Your task to perform on an android device: turn off javascript in the chrome app Image 0: 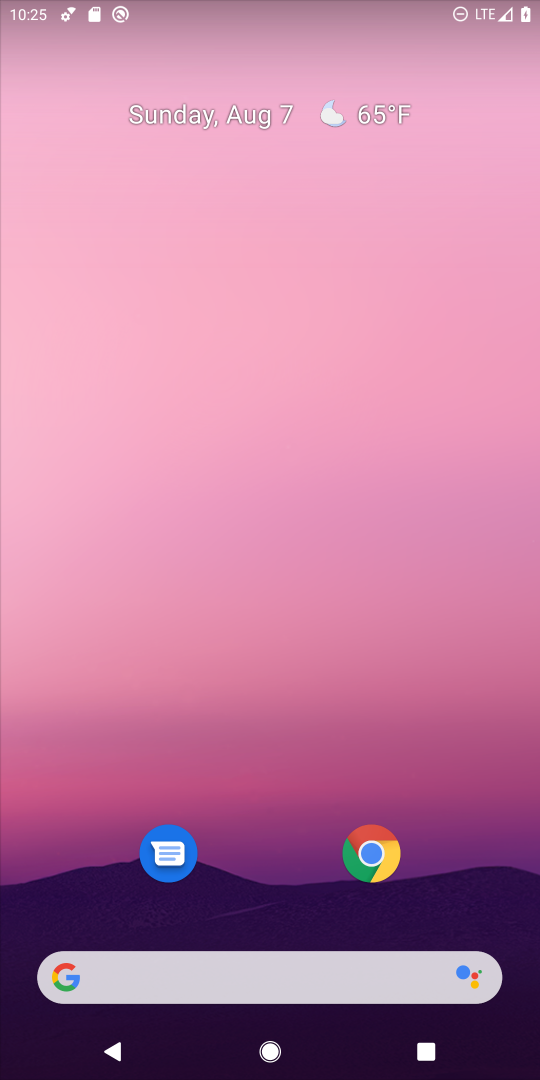
Step 0: drag from (309, 916) to (263, 237)
Your task to perform on an android device: turn off javascript in the chrome app Image 1: 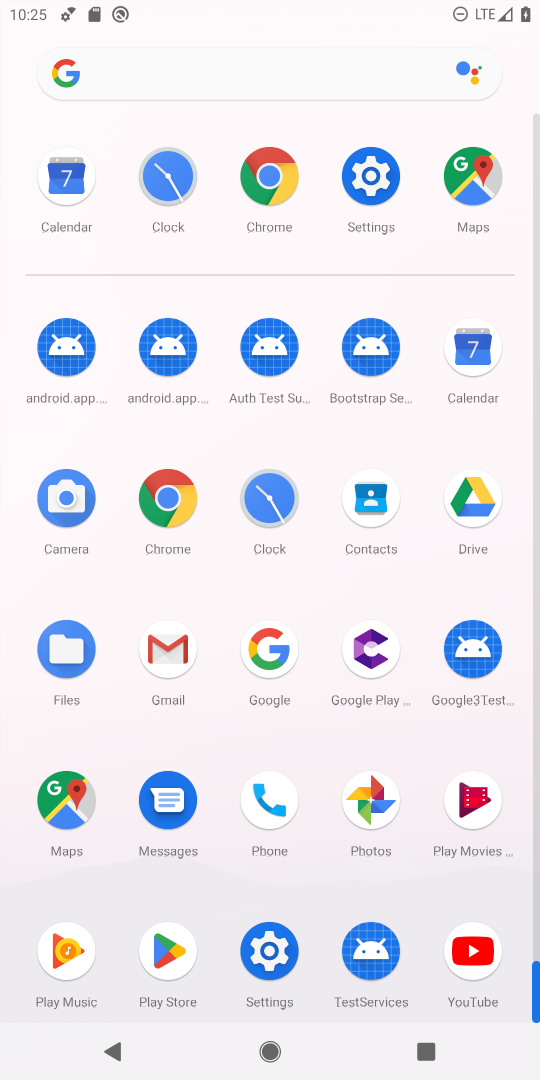
Step 1: click (271, 165)
Your task to perform on an android device: turn off javascript in the chrome app Image 2: 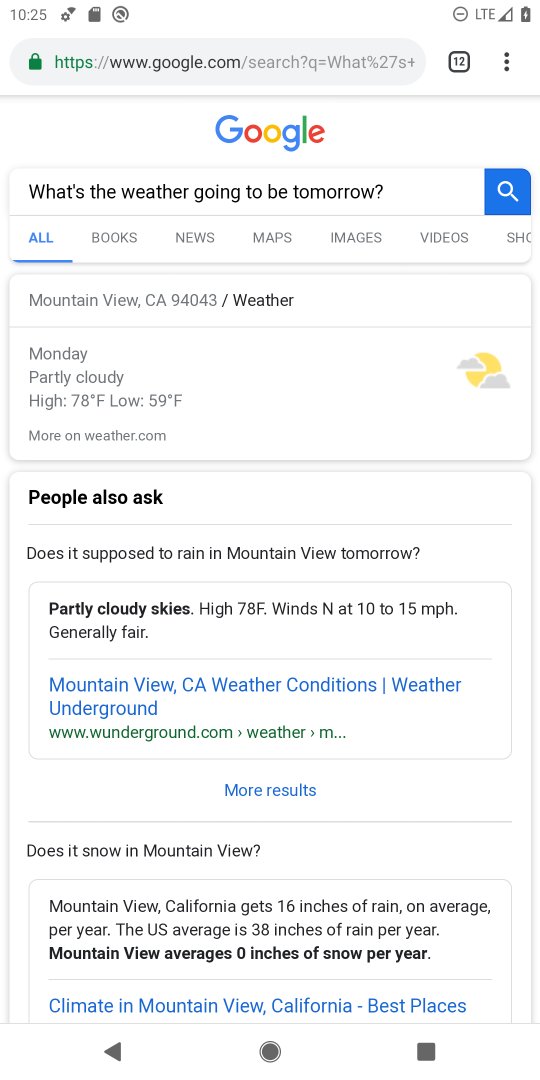
Step 2: click (511, 62)
Your task to perform on an android device: turn off javascript in the chrome app Image 3: 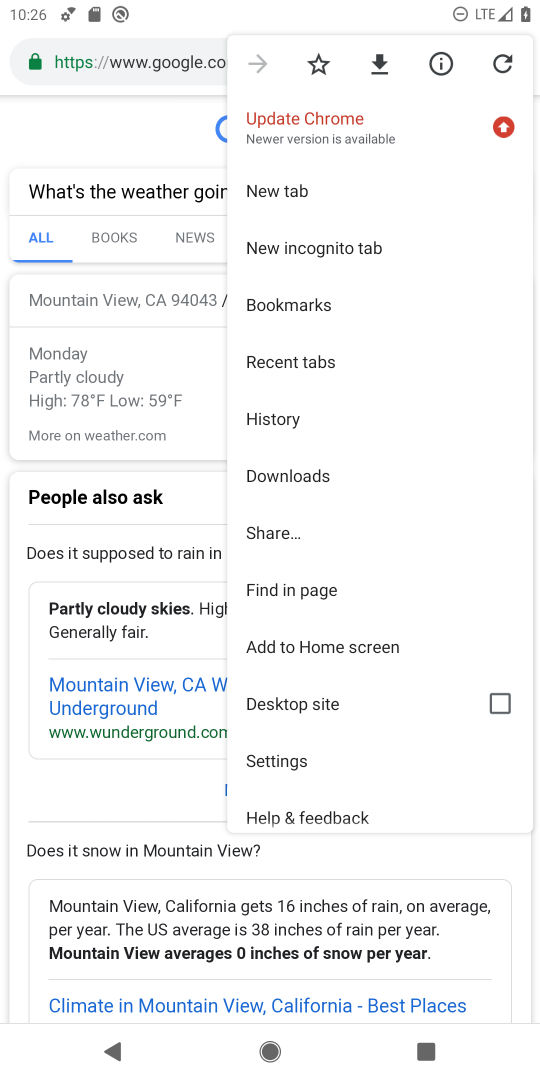
Step 3: click (293, 765)
Your task to perform on an android device: turn off javascript in the chrome app Image 4: 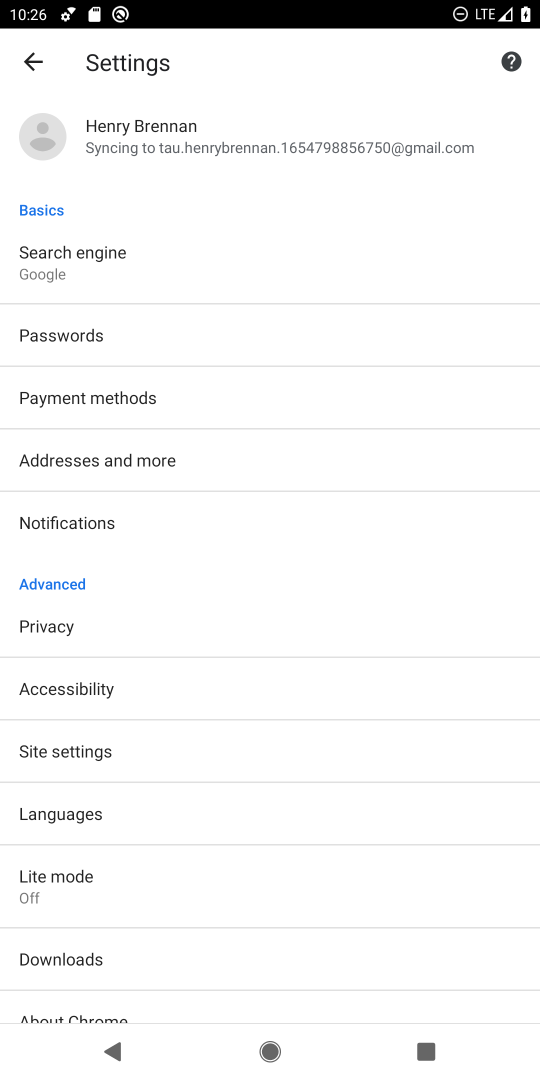
Step 4: drag from (107, 906) to (218, 390)
Your task to perform on an android device: turn off javascript in the chrome app Image 5: 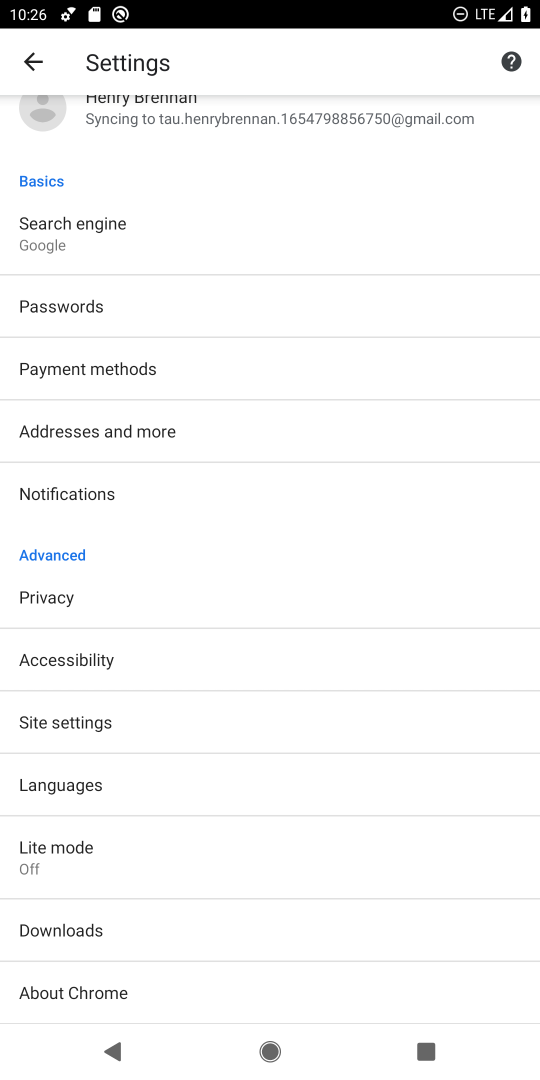
Step 5: click (145, 848)
Your task to perform on an android device: turn off javascript in the chrome app Image 6: 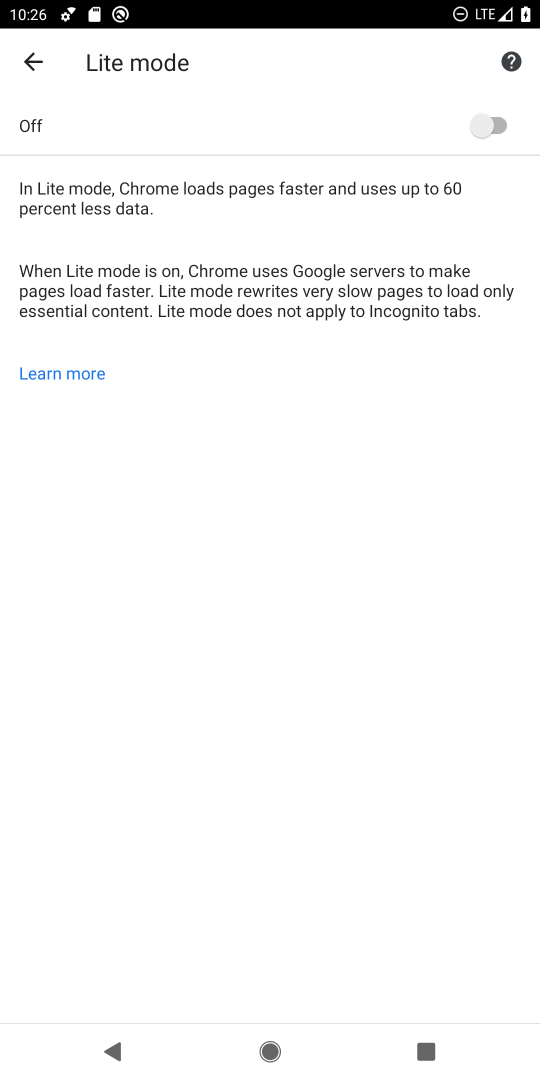
Step 6: task complete